Your task to perform on an android device: turn notification dots off Image 0: 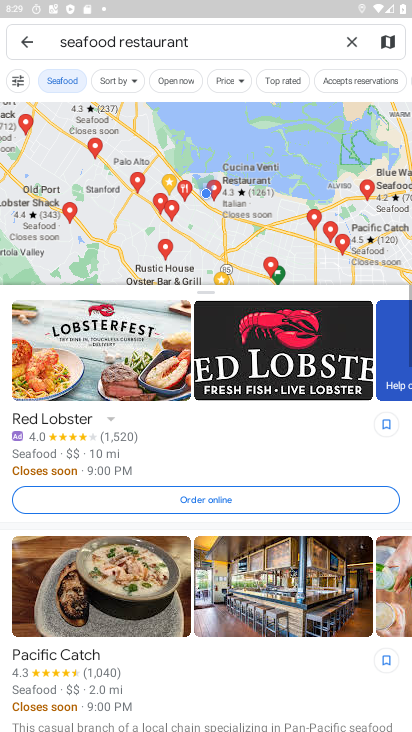
Step 0: press home button
Your task to perform on an android device: turn notification dots off Image 1: 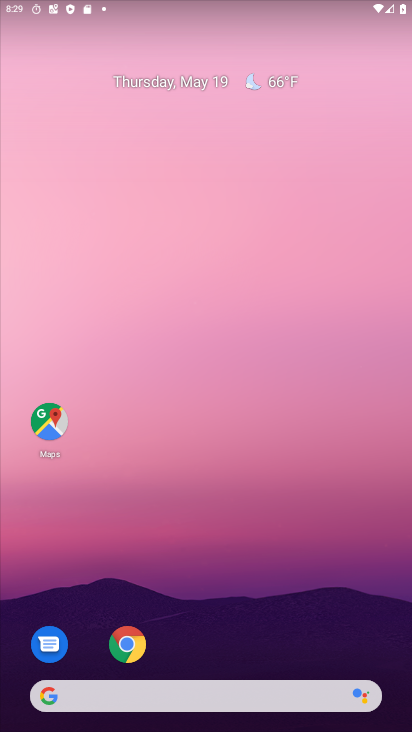
Step 1: drag from (380, 605) to (370, 171)
Your task to perform on an android device: turn notification dots off Image 2: 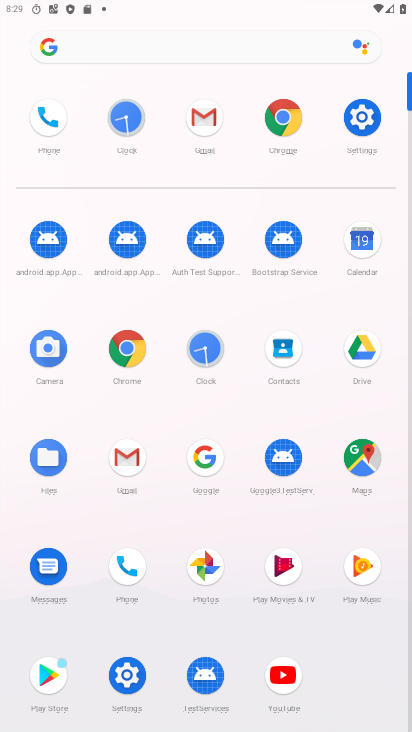
Step 2: click (128, 682)
Your task to perform on an android device: turn notification dots off Image 3: 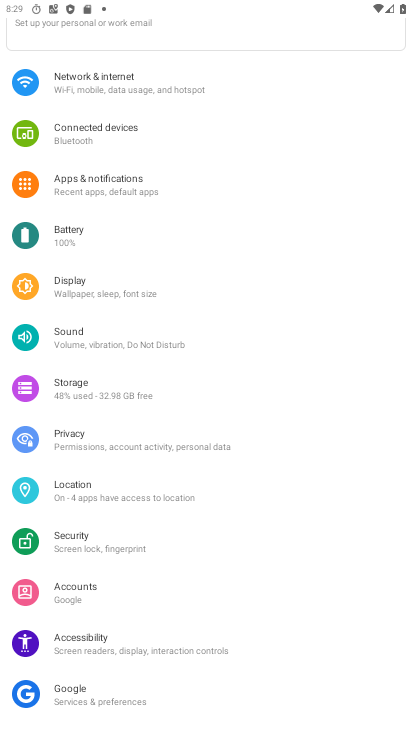
Step 3: click (129, 188)
Your task to perform on an android device: turn notification dots off Image 4: 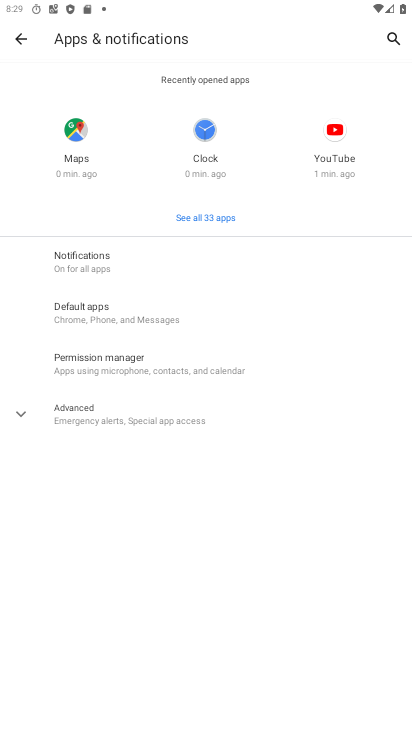
Step 4: click (100, 252)
Your task to perform on an android device: turn notification dots off Image 5: 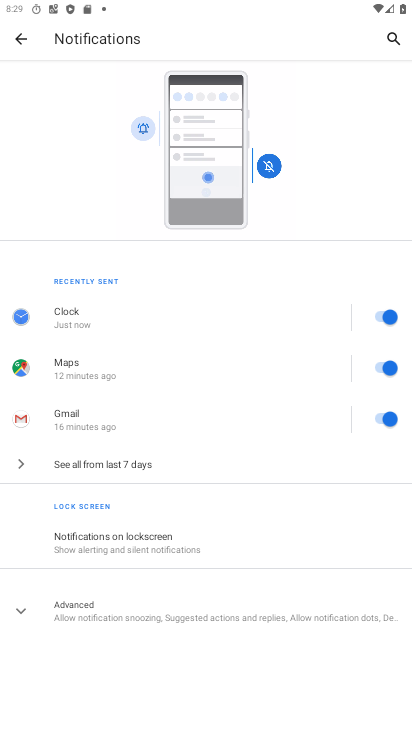
Step 5: click (186, 626)
Your task to perform on an android device: turn notification dots off Image 6: 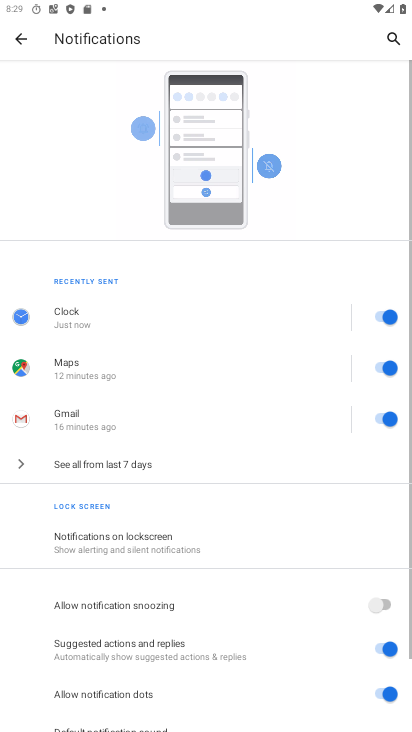
Step 6: drag from (229, 696) to (209, 421)
Your task to perform on an android device: turn notification dots off Image 7: 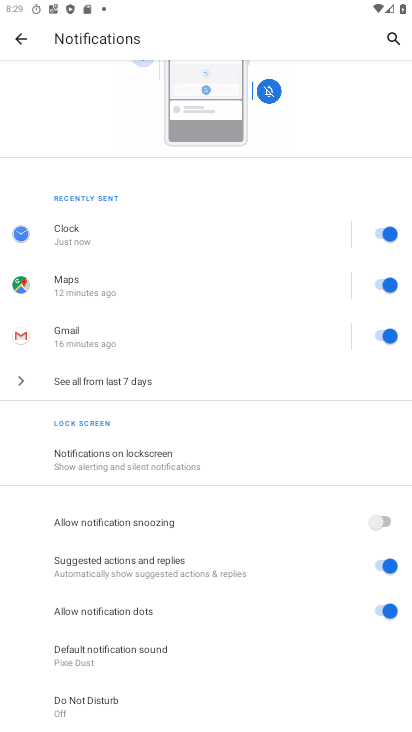
Step 7: click (383, 613)
Your task to perform on an android device: turn notification dots off Image 8: 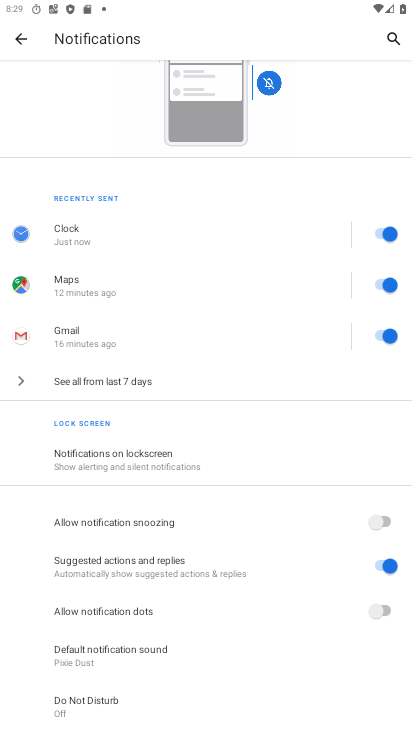
Step 8: task complete